Your task to perform on an android device: Open calendar and show me the third week of next month Image 0: 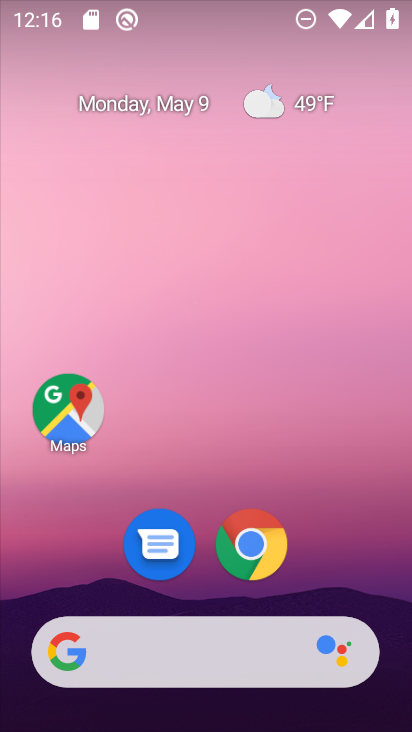
Step 0: drag from (344, 526) to (327, 82)
Your task to perform on an android device: Open calendar and show me the third week of next month Image 1: 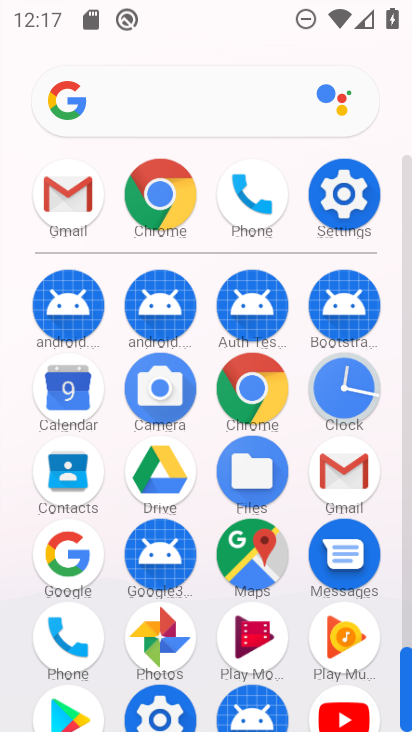
Step 1: click (66, 418)
Your task to perform on an android device: Open calendar and show me the third week of next month Image 2: 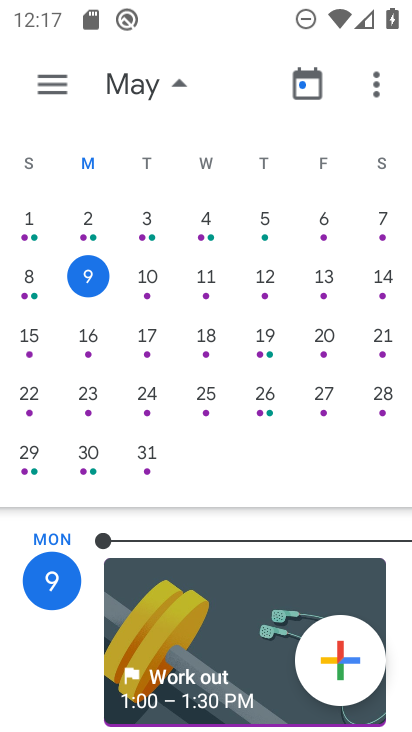
Step 2: drag from (299, 285) to (10, 284)
Your task to perform on an android device: Open calendar and show me the third week of next month Image 3: 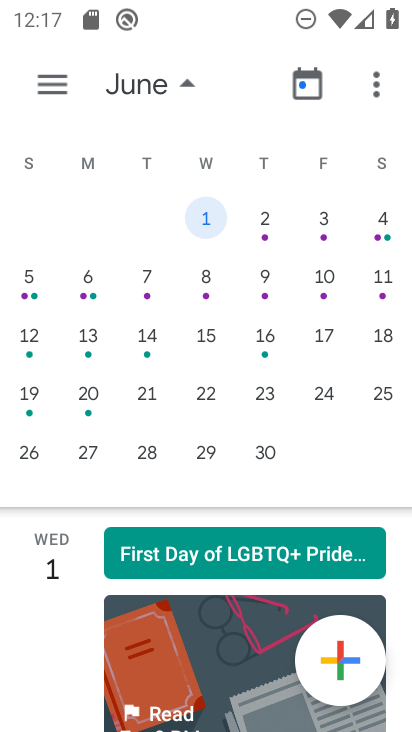
Step 3: click (152, 411)
Your task to perform on an android device: Open calendar and show me the third week of next month Image 4: 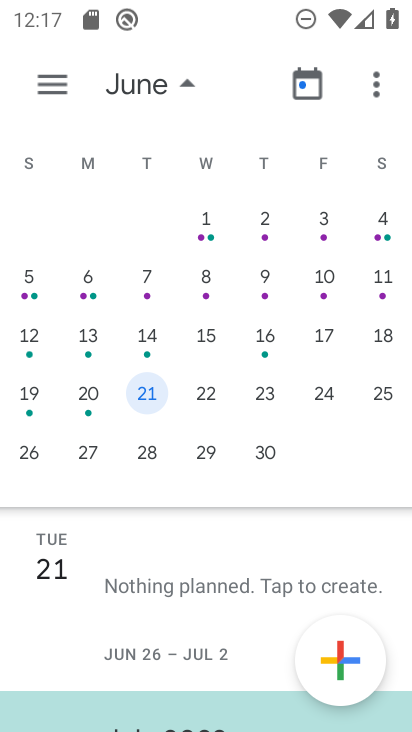
Step 4: task complete